Your task to perform on an android device: make emails show in primary in the gmail app Image 0: 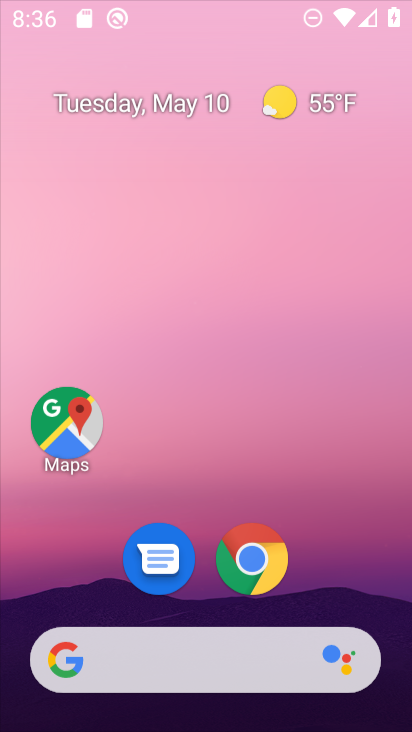
Step 0: click (364, 315)
Your task to perform on an android device: make emails show in primary in the gmail app Image 1: 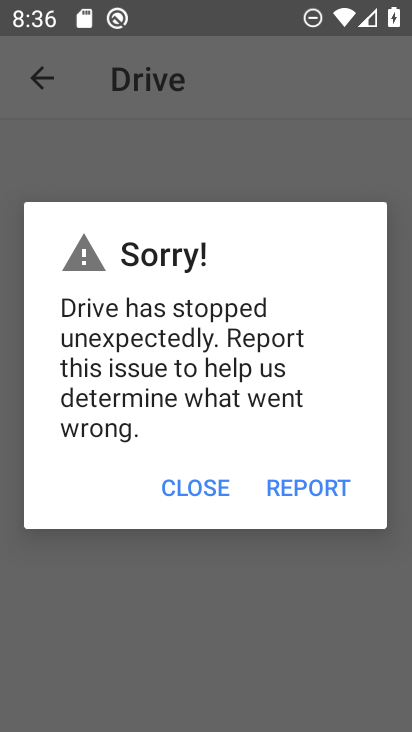
Step 1: click (201, 482)
Your task to perform on an android device: make emails show in primary in the gmail app Image 2: 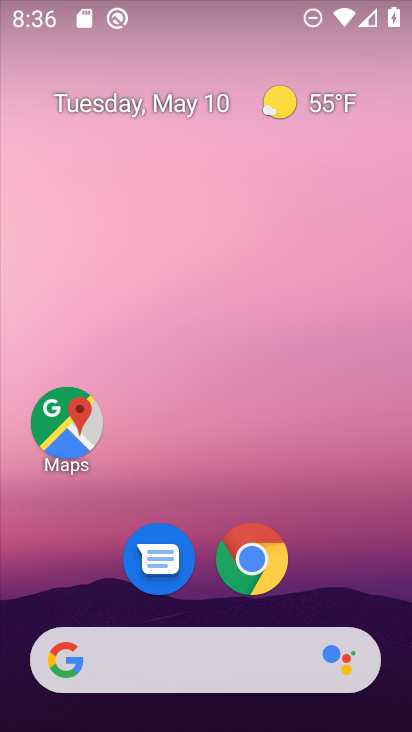
Step 2: task complete